Your task to perform on an android device: Do I have any events tomorrow? Image 0: 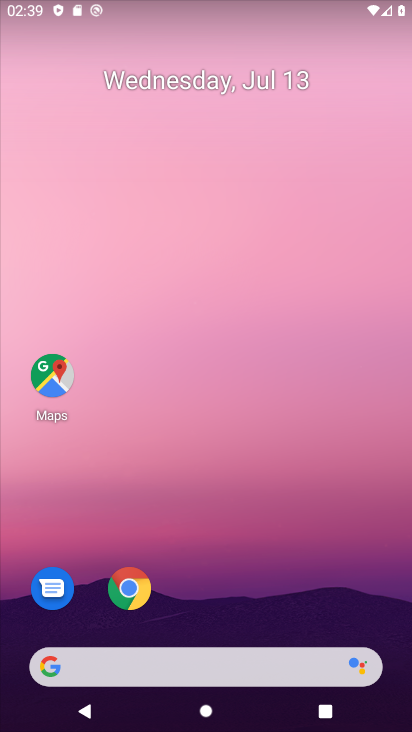
Step 0: drag from (298, 591) to (225, 66)
Your task to perform on an android device: Do I have any events tomorrow? Image 1: 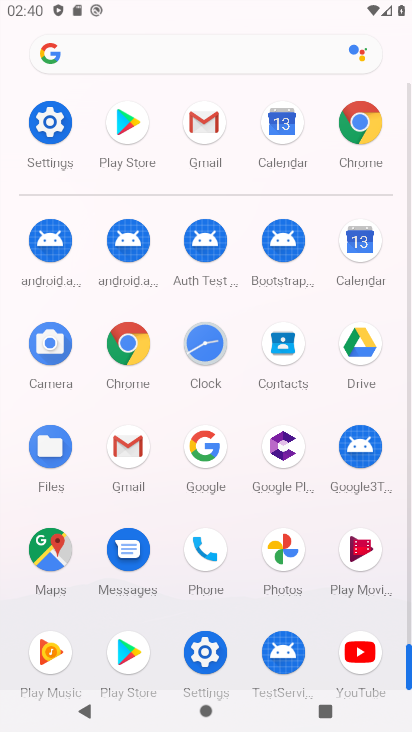
Step 1: click (352, 241)
Your task to perform on an android device: Do I have any events tomorrow? Image 2: 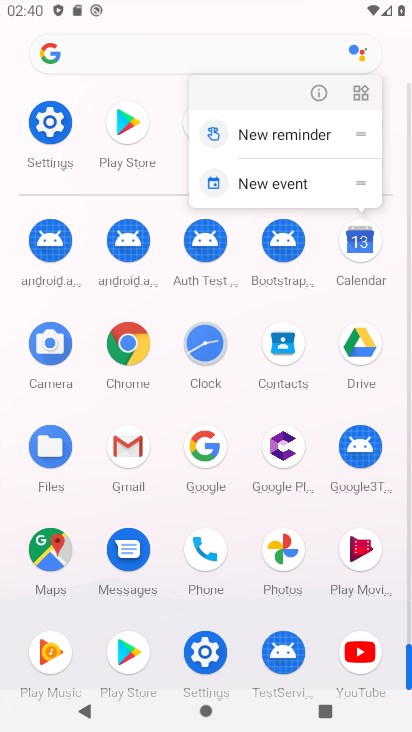
Step 2: click (352, 241)
Your task to perform on an android device: Do I have any events tomorrow? Image 3: 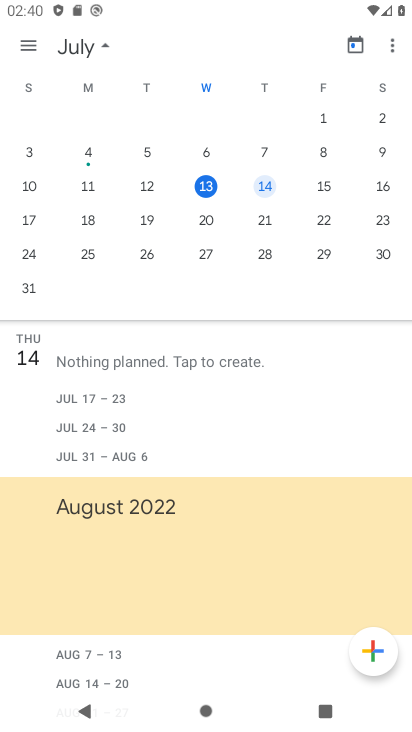
Step 3: click (271, 184)
Your task to perform on an android device: Do I have any events tomorrow? Image 4: 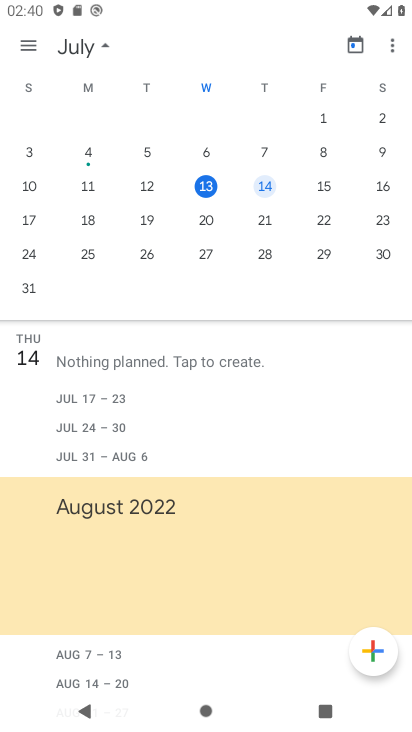
Step 4: task complete